Your task to perform on an android device: uninstall "AliExpress" Image 0: 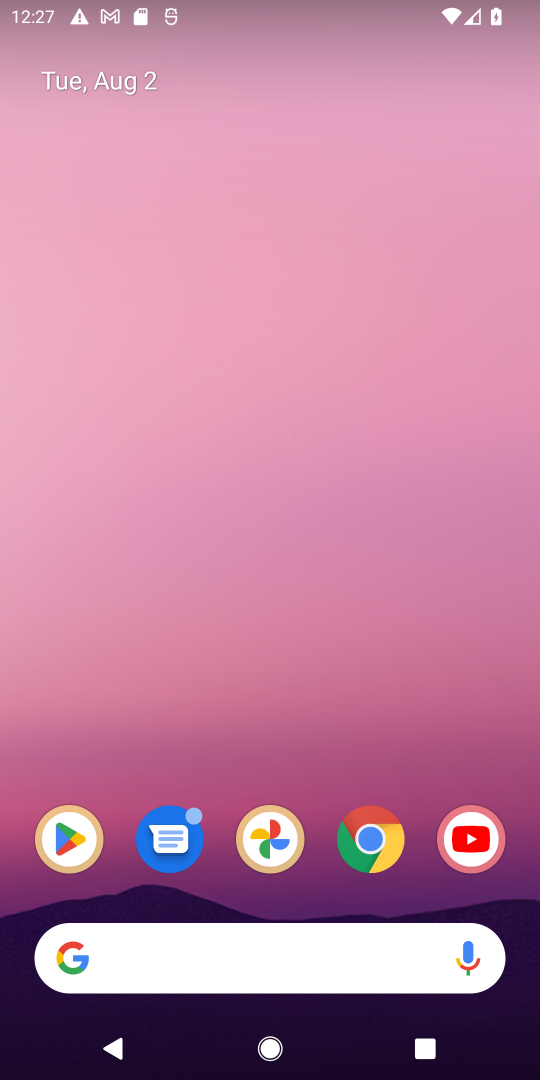
Step 0: click (68, 838)
Your task to perform on an android device: uninstall "AliExpress" Image 1: 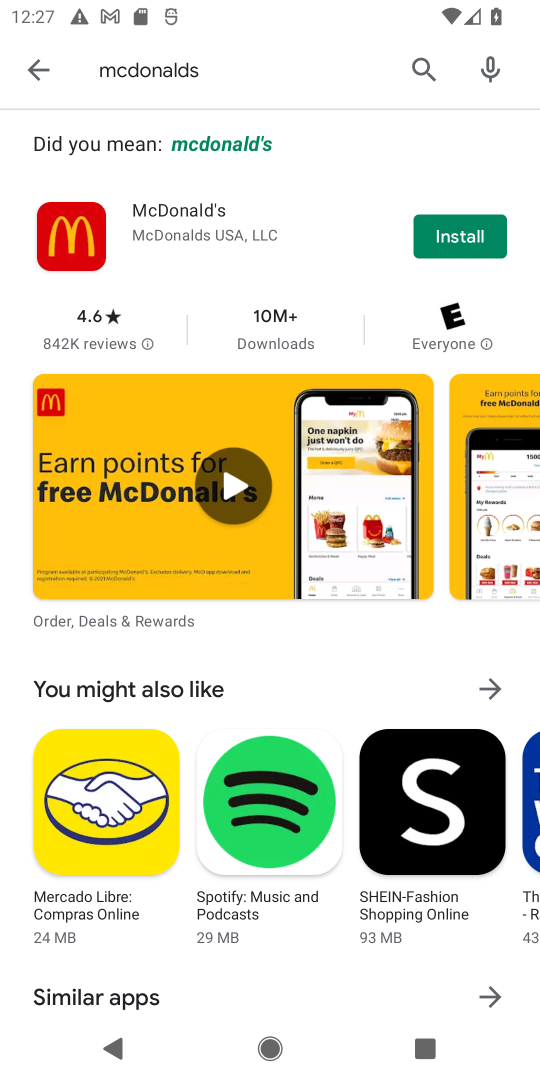
Step 1: click (428, 70)
Your task to perform on an android device: uninstall "AliExpress" Image 2: 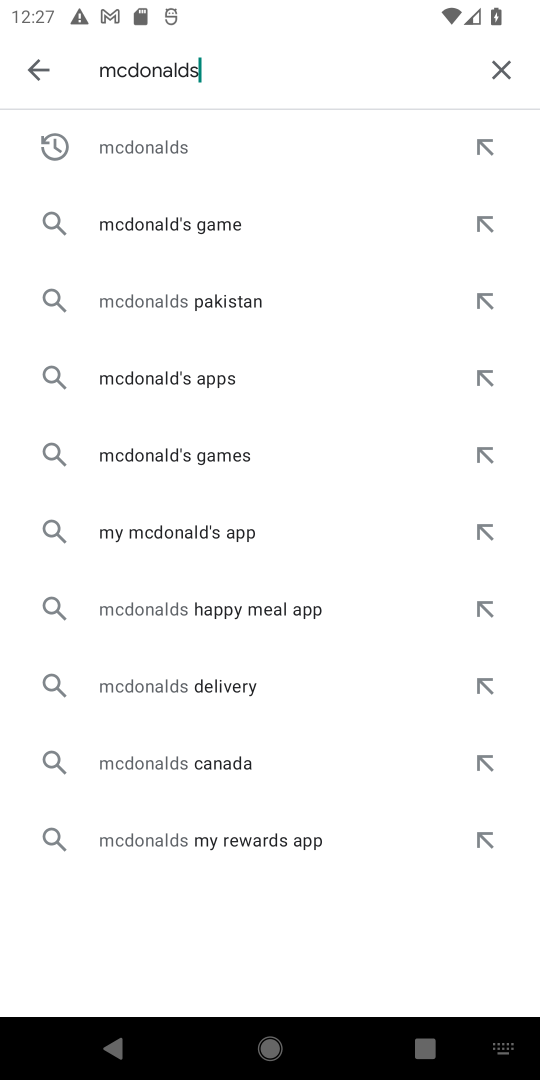
Step 2: click (511, 73)
Your task to perform on an android device: uninstall "AliExpress" Image 3: 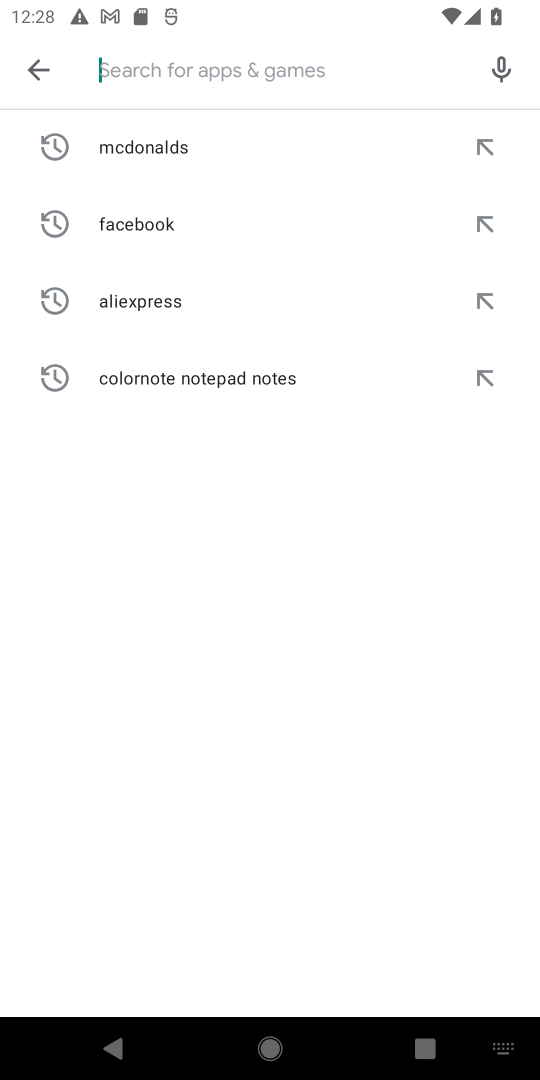
Step 3: type "aliexpress"
Your task to perform on an android device: uninstall "AliExpress" Image 4: 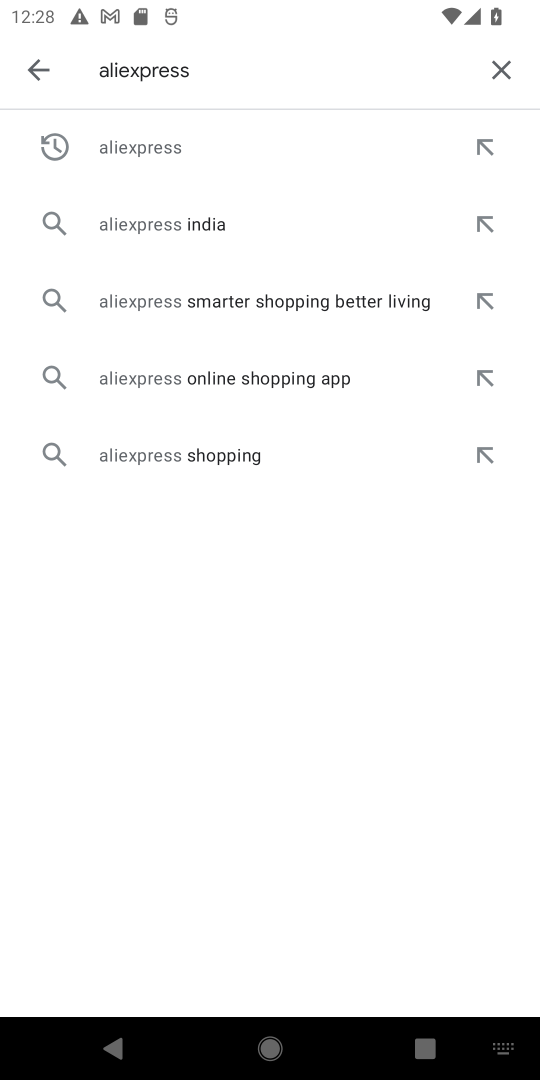
Step 4: click (147, 135)
Your task to perform on an android device: uninstall "AliExpress" Image 5: 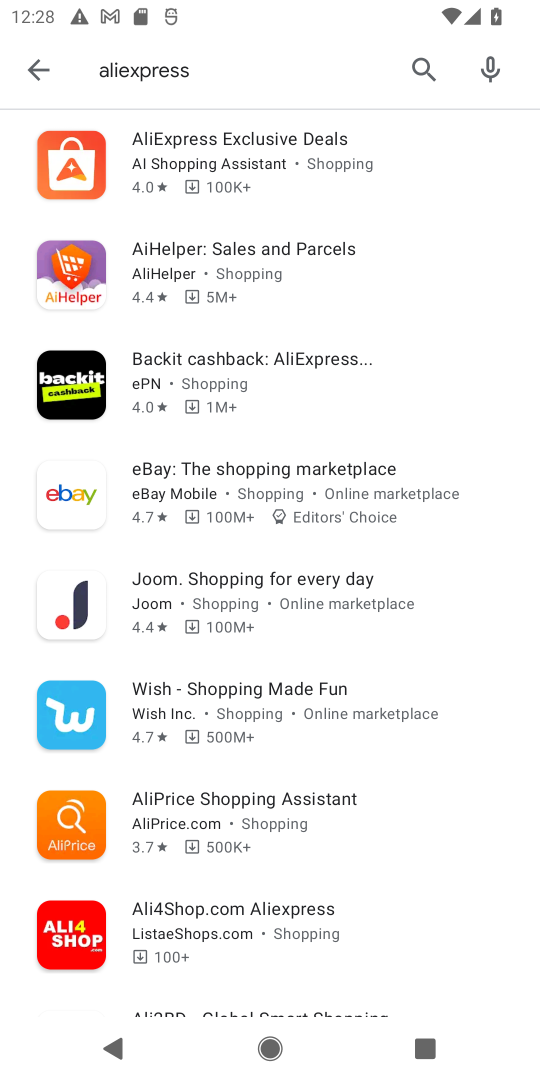
Step 5: click (147, 135)
Your task to perform on an android device: uninstall "AliExpress" Image 6: 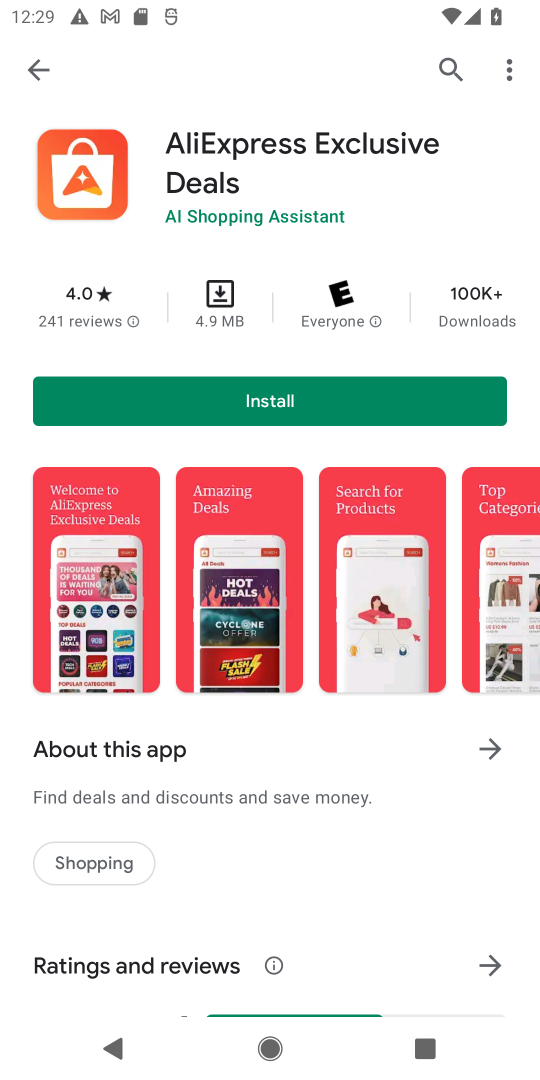
Step 6: task complete